Your task to perform on an android device: find photos in the google photos app Image 0: 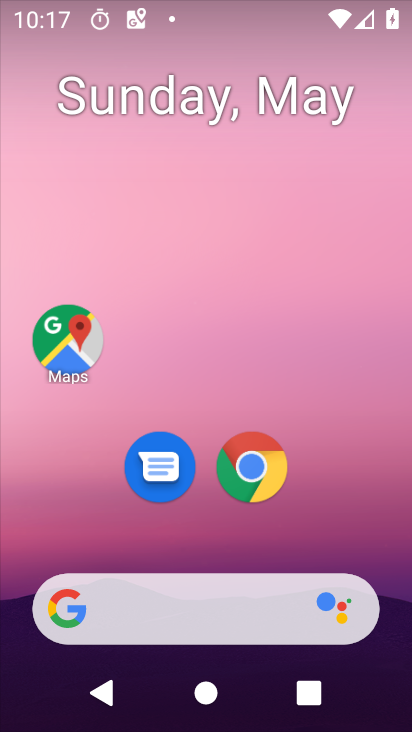
Step 0: drag from (206, 546) to (194, 86)
Your task to perform on an android device: find photos in the google photos app Image 1: 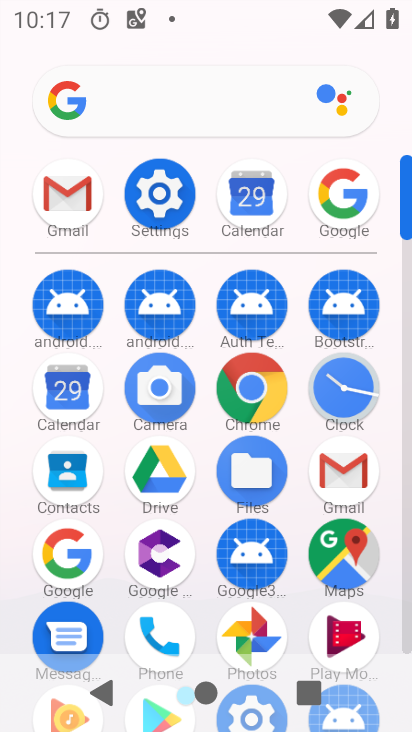
Step 1: drag from (198, 519) to (168, 273)
Your task to perform on an android device: find photos in the google photos app Image 2: 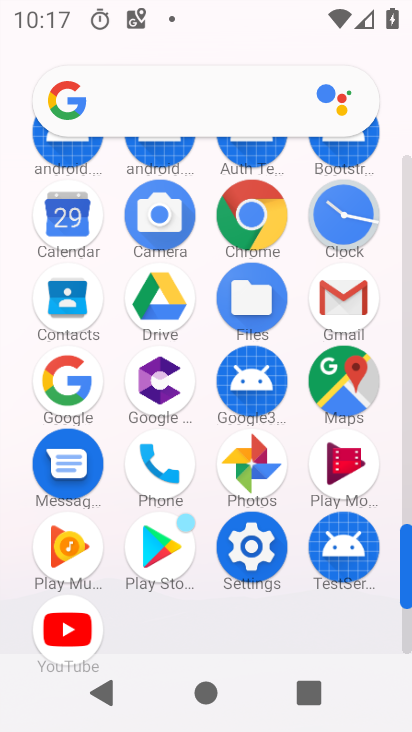
Step 2: click (251, 475)
Your task to perform on an android device: find photos in the google photos app Image 3: 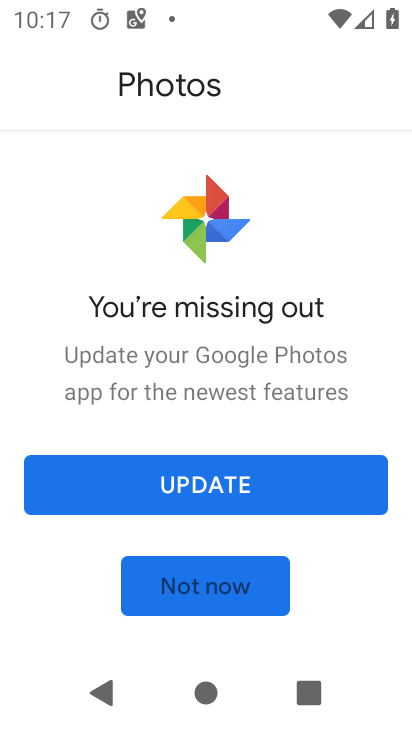
Step 3: click (245, 579)
Your task to perform on an android device: find photos in the google photos app Image 4: 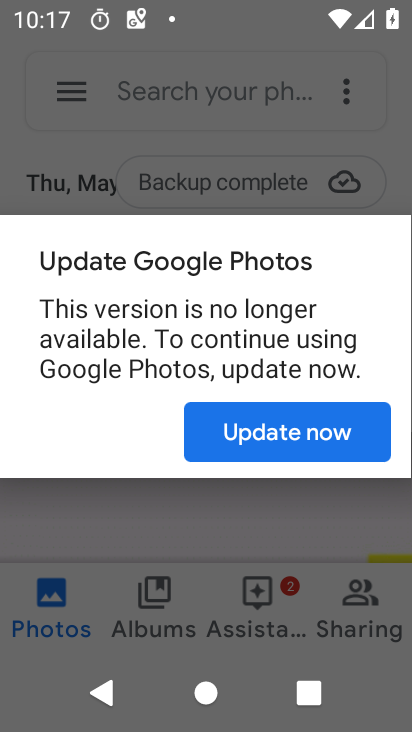
Step 4: click (173, 104)
Your task to perform on an android device: find photos in the google photos app Image 5: 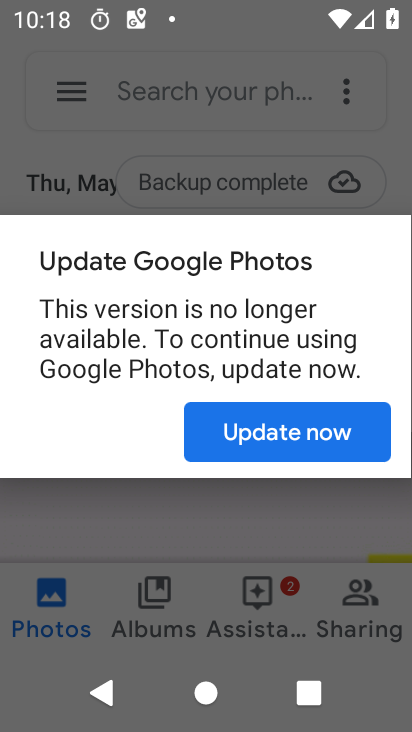
Step 5: click (195, 100)
Your task to perform on an android device: find photos in the google photos app Image 6: 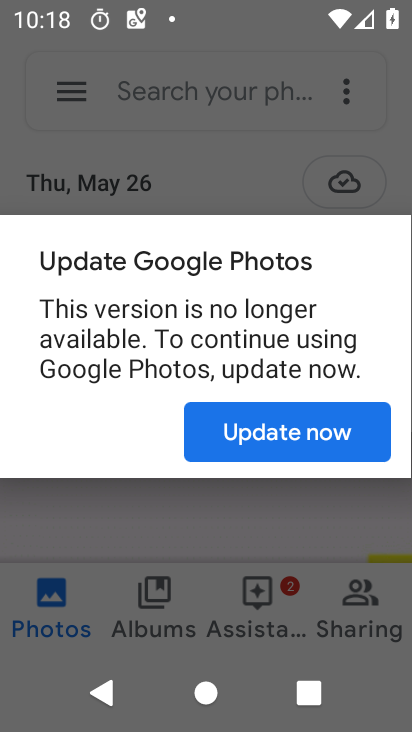
Step 6: press back button
Your task to perform on an android device: find photos in the google photos app Image 7: 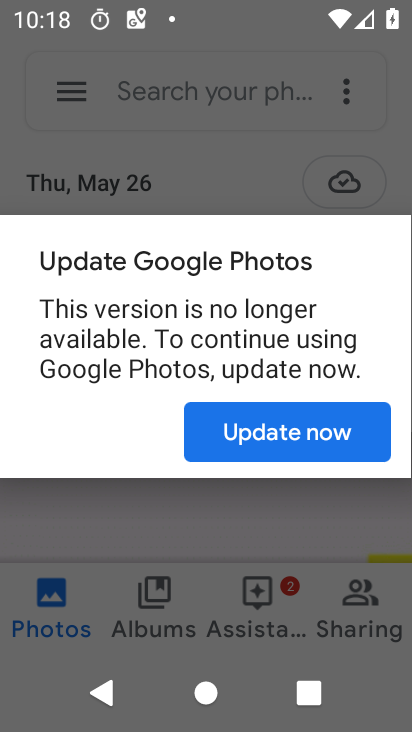
Step 7: click (180, 97)
Your task to perform on an android device: find photos in the google photos app Image 8: 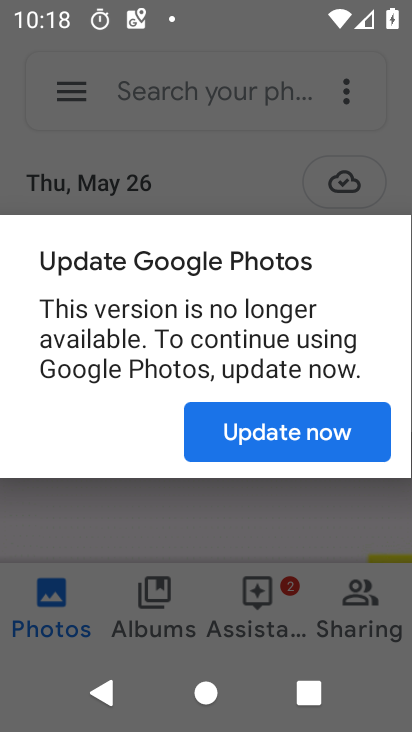
Step 8: click (188, 94)
Your task to perform on an android device: find photos in the google photos app Image 9: 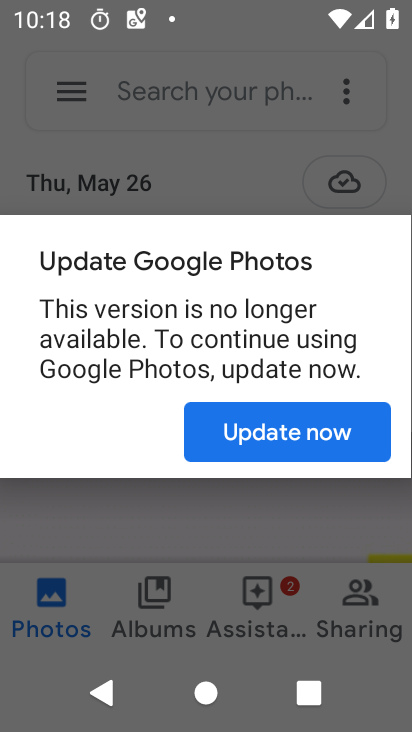
Step 9: press back button
Your task to perform on an android device: find photos in the google photos app Image 10: 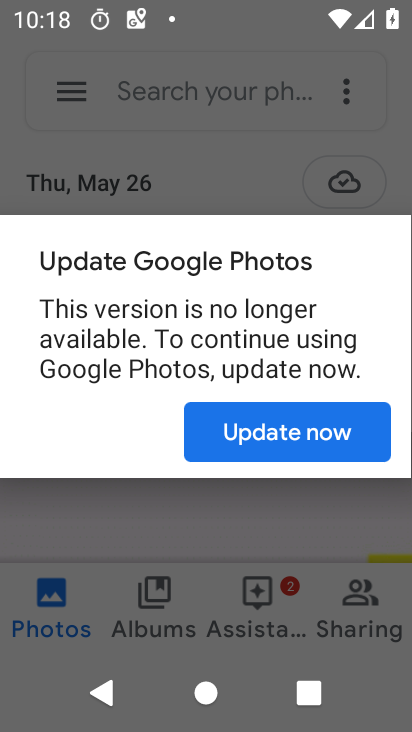
Step 10: click (161, 90)
Your task to perform on an android device: find photos in the google photos app Image 11: 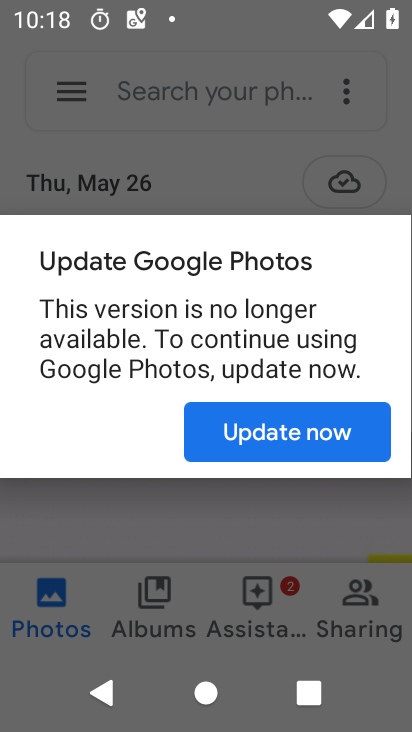
Step 11: click (168, 88)
Your task to perform on an android device: find photos in the google photos app Image 12: 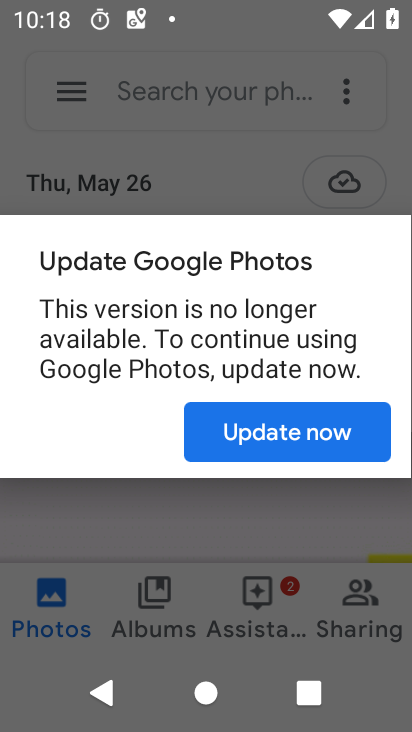
Step 12: click (170, 95)
Your task to perform on an android device: find photos in the google photos app Image 13: 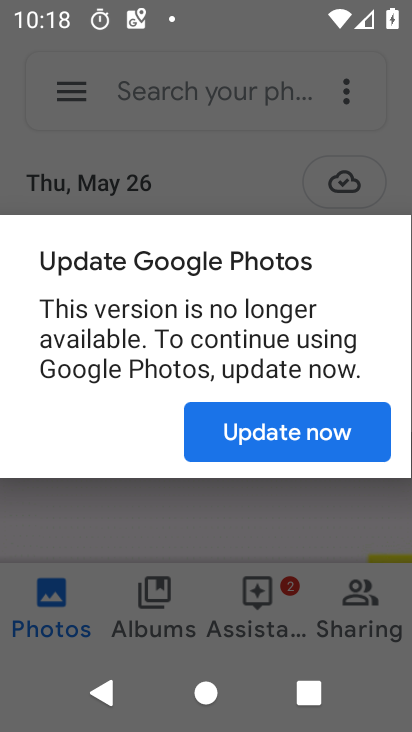
Step 13: click (170, 95)
Your task to perform on an android device: find photos in the google photos app Image 14: 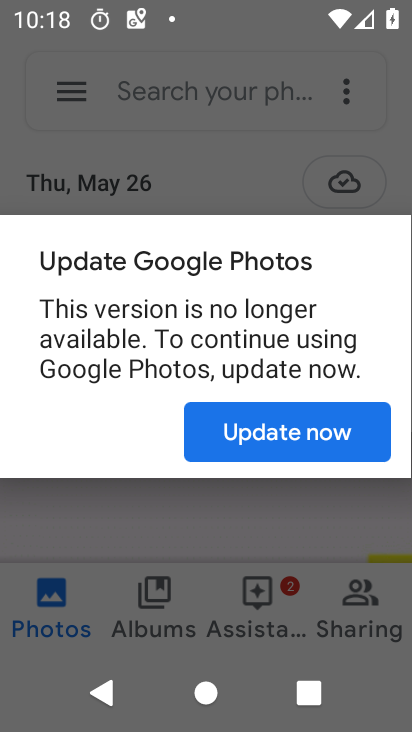
Step 14: click (272, 431)
Your task to perform on an android device: find photos in the google photos app Image 15: 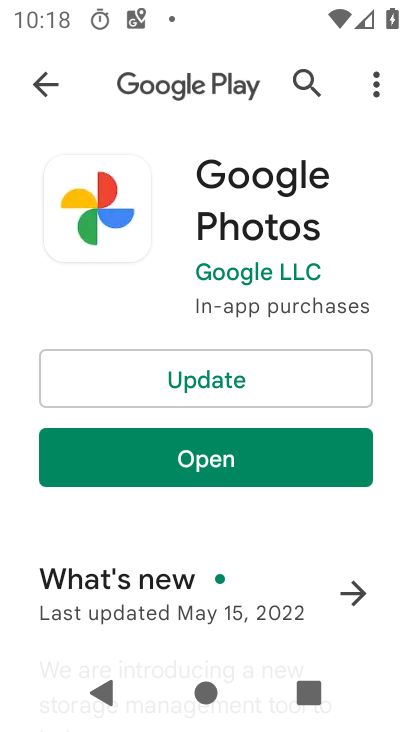
Step 15: click (234, 449)
Your task to perform on an android device: find photos in the google photos app Image 16: 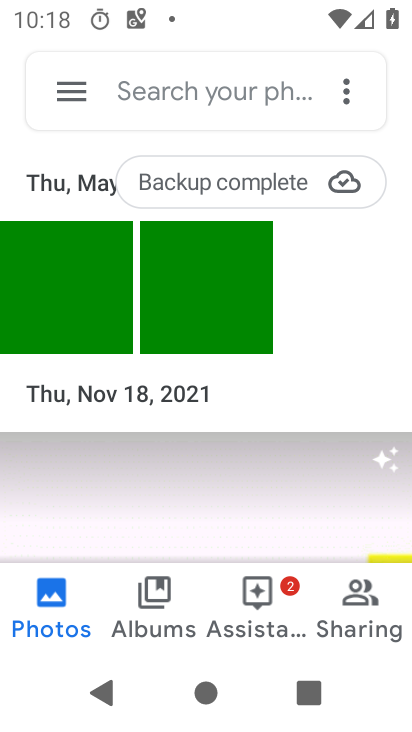
Step 16: click (208, 91)
Your task to perform on an android device: find photos in the google photos app Image 17: 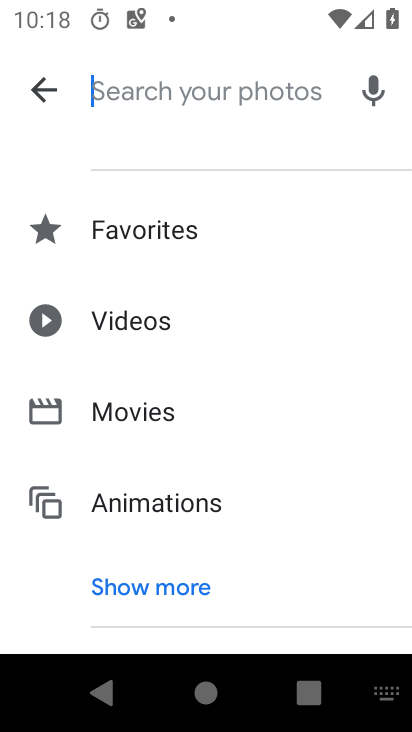
Step 17: type "aa"
Your task to perform on an android device: find photos in the google photos app Image 18: 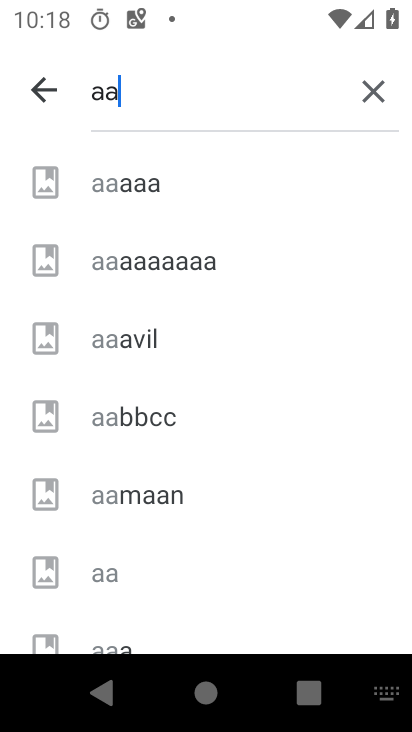
Step 18: click (181, 332)
Your task to perform on an android device: find photos in the google photos app Image 19: 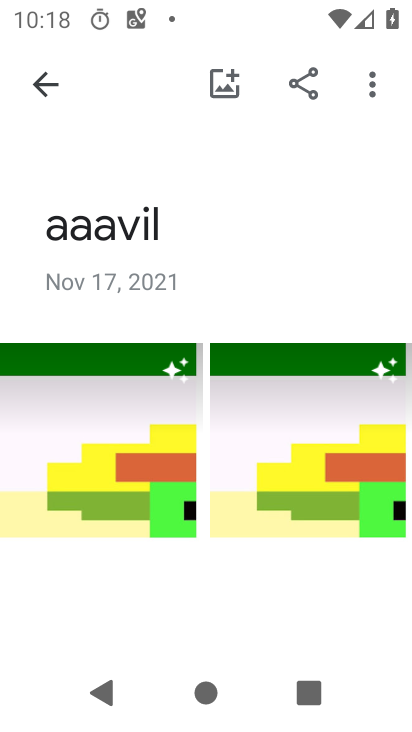
Step 19: task complete